Your task to perform on an android device: Open Chrome and go to settings Image 0: 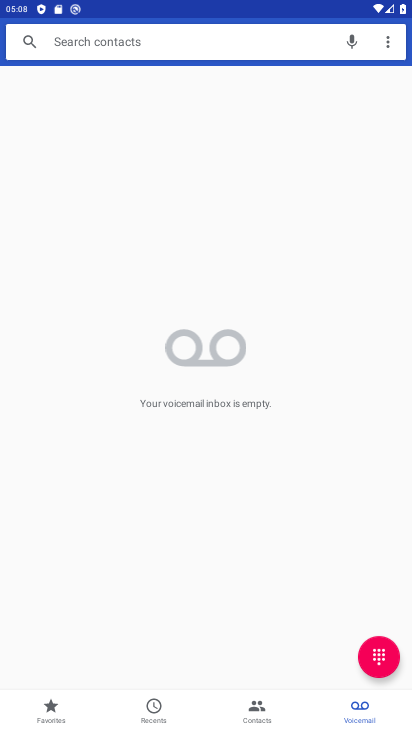
Step 0: press back button
Your task to perform on an android device: Open Chrome and go to settings Image 1: 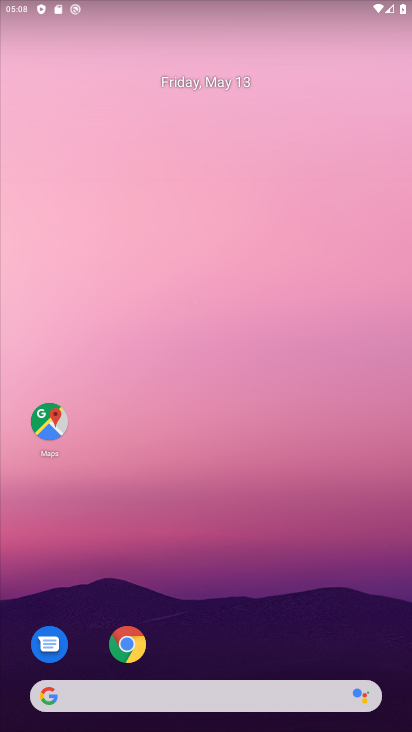
Step 1: click (135, 647)
Your task to perform on an android device: Open Chrome and go to settings Image 2: 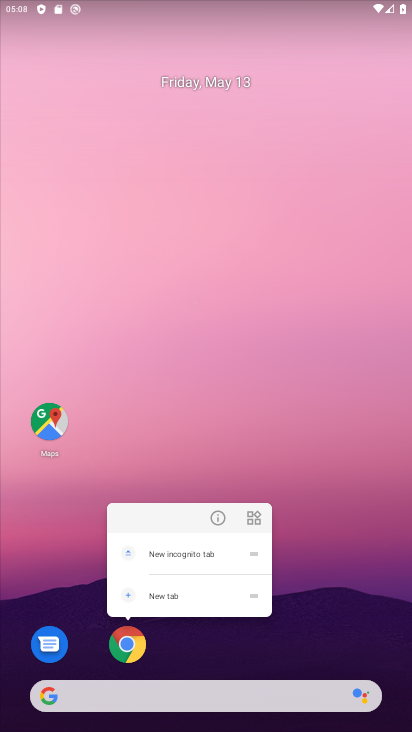
Step 2: click (119, 639)
Your task to perform on an android device: Open Chrome and go to settings Image 3: 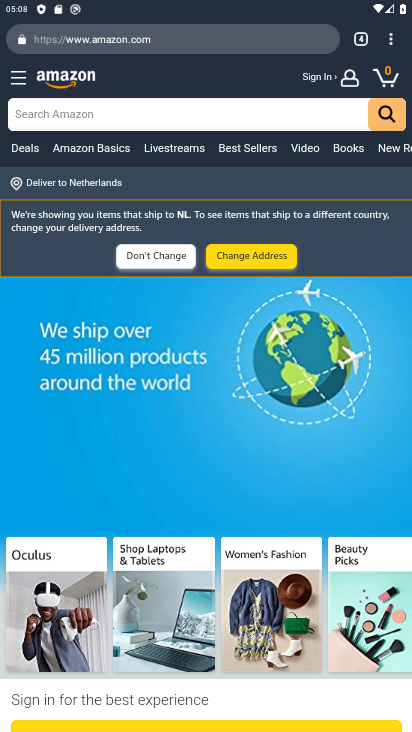
Step 3: task complete